Your task to perform on an android device: open app "The Home Depot" (install if not already installed) Image 0: 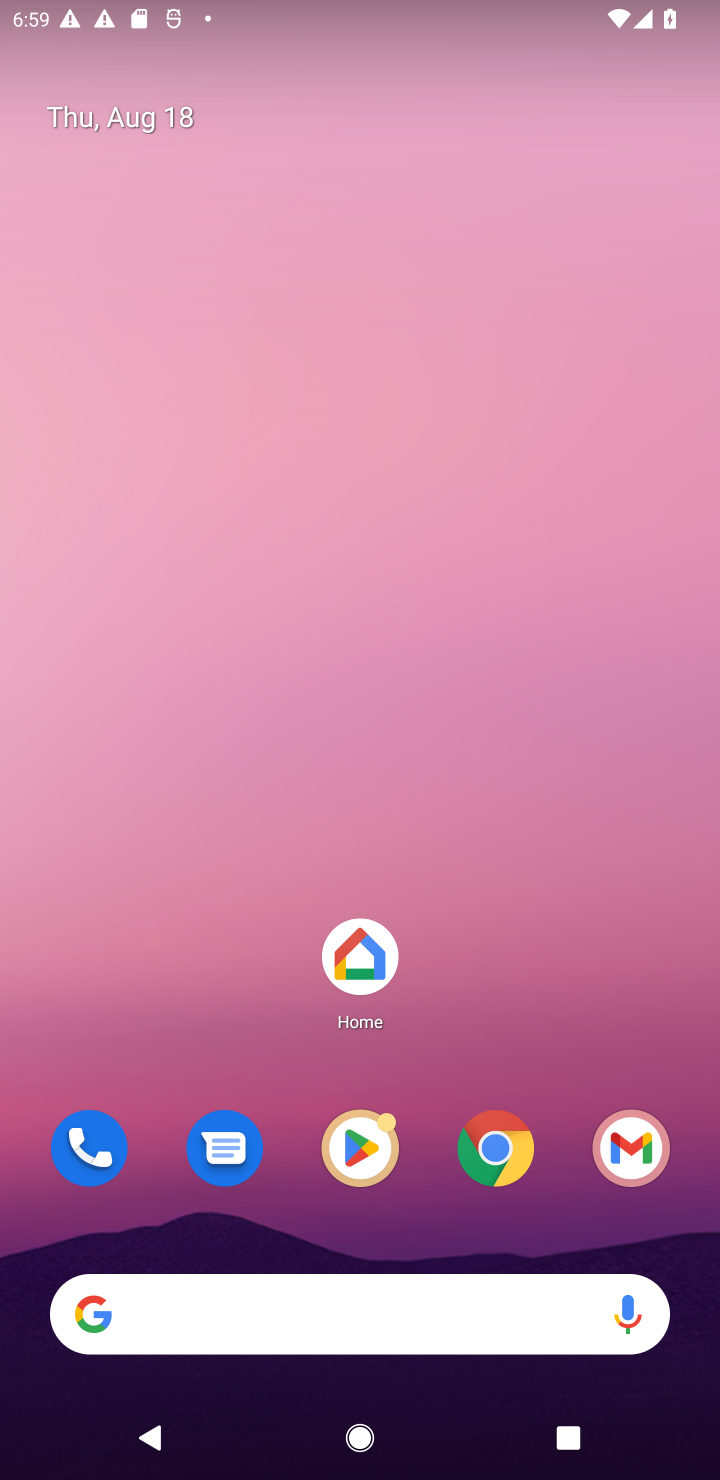
Step 0: drag from (211, 1051) to (270, 1)
Your task to perform on an android device: open app "The Home Depot" (install if not already installed) Image 1: 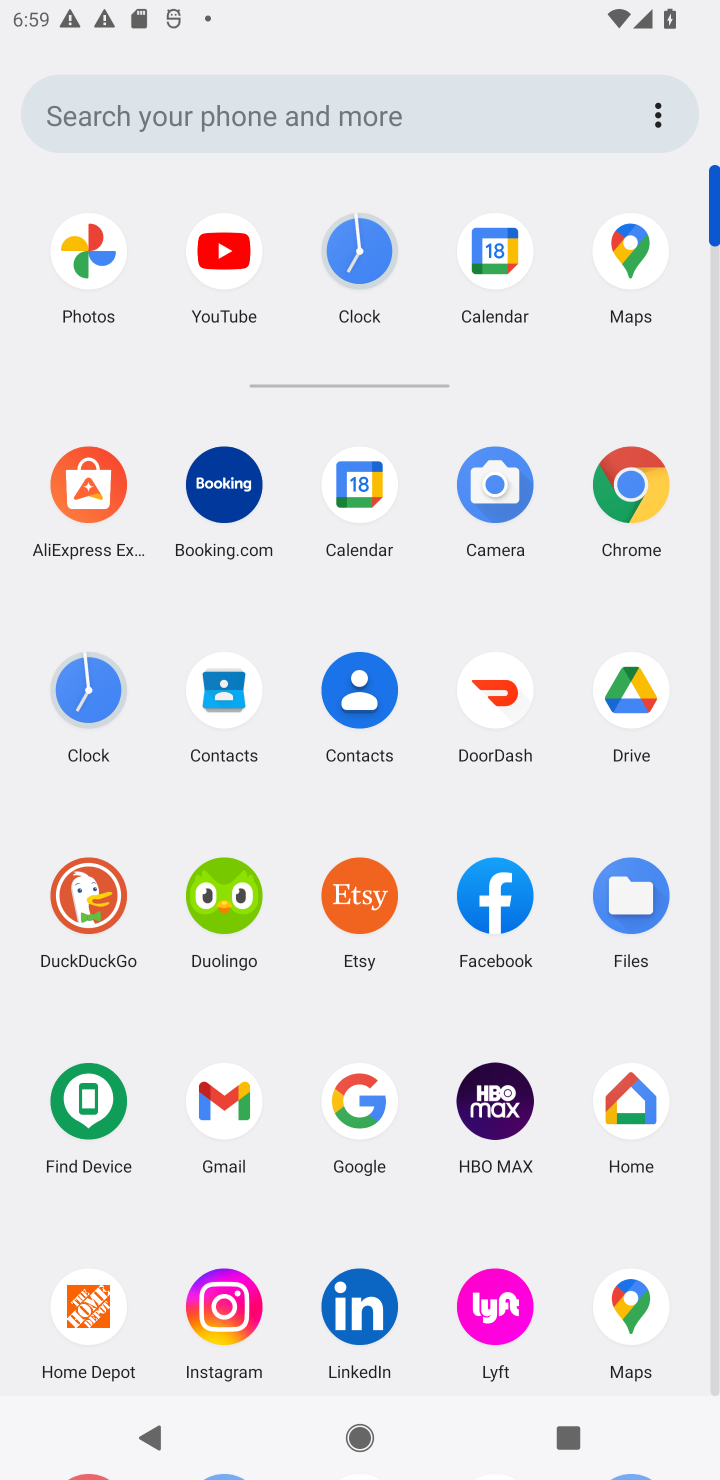
Step 1: drag from (569, 1194) to (439, 341)
Your task to perform on an android device: open app "The Home Depot" (install if not already installed) Image 2: 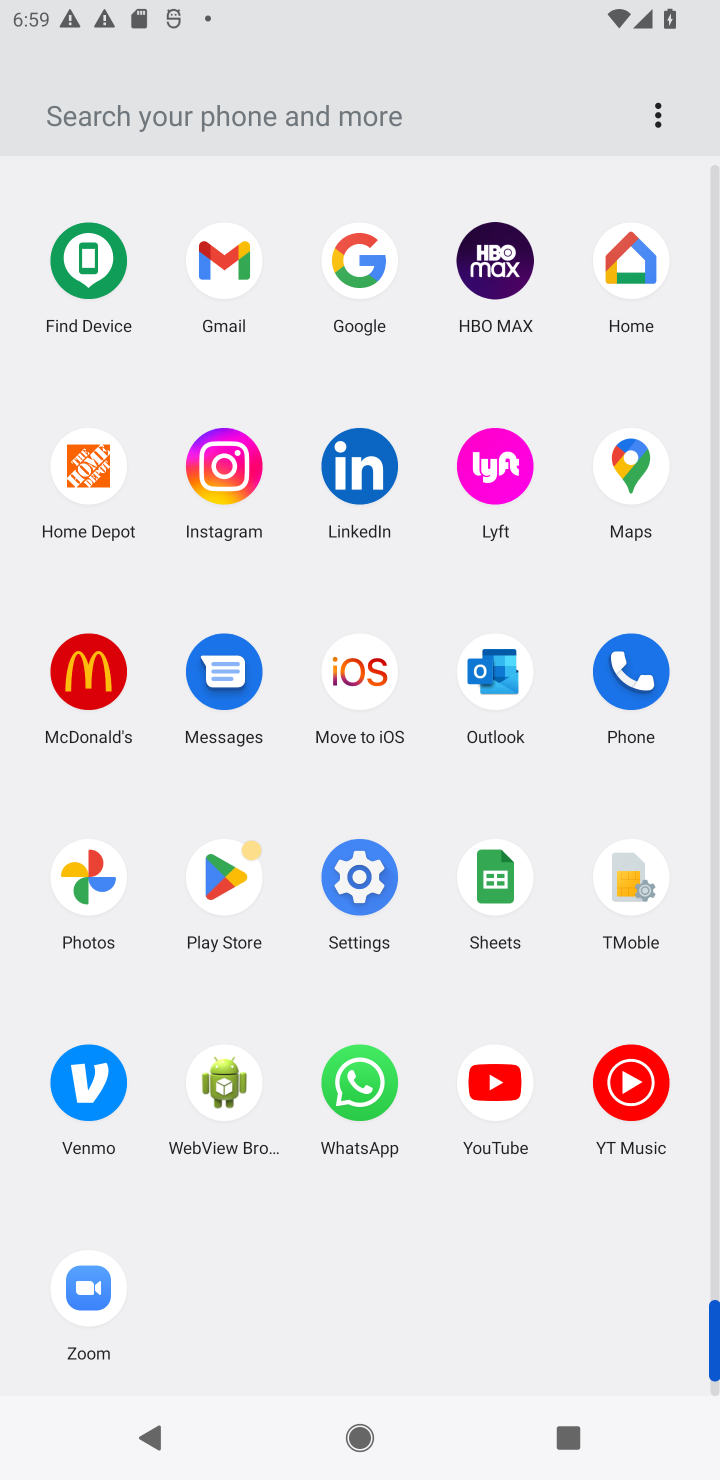
Step 2: click (220, 882)
Your task to perform on an android device: open app "The Home Depot" (install if not already installed) Image 3: 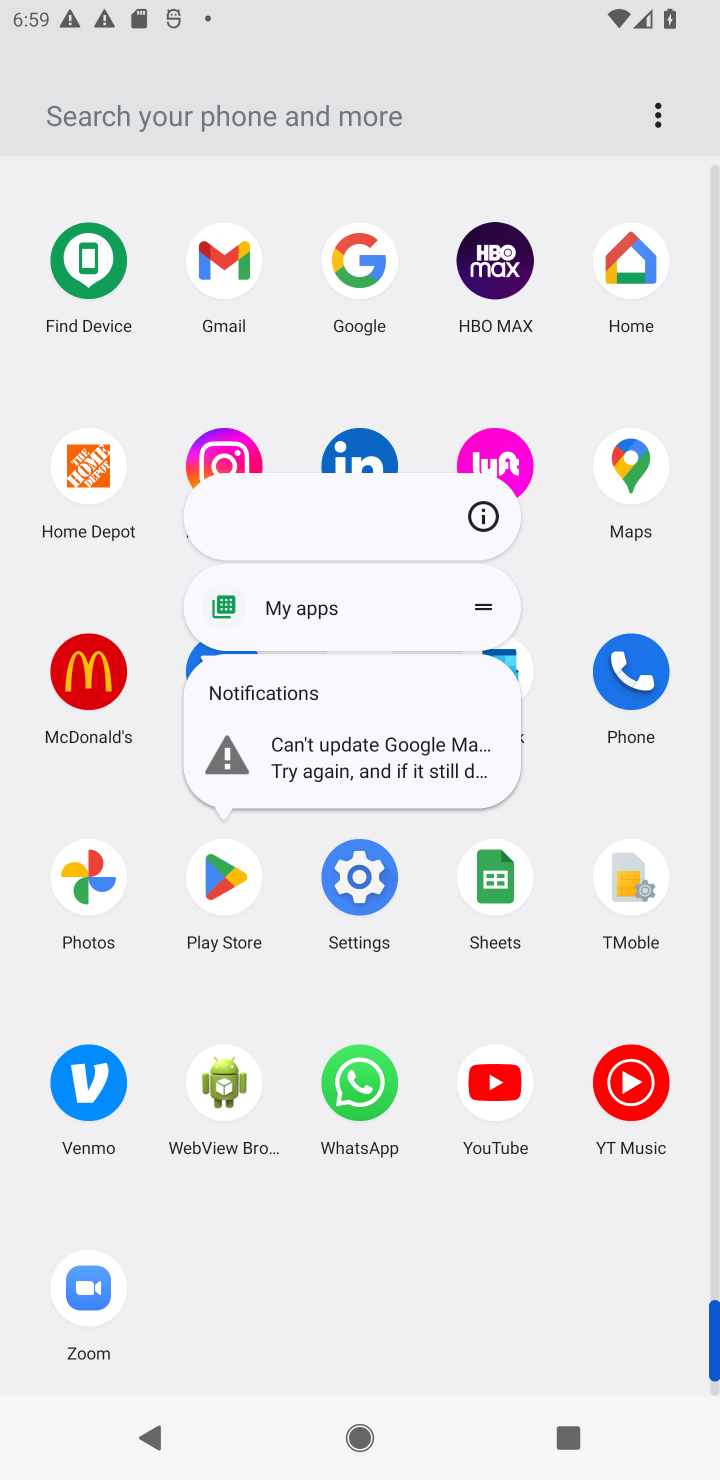
Step 3: click (220, 877)
Your task to perform on an android device: open app "The Home Depot" (install if not already installed) Image 4: 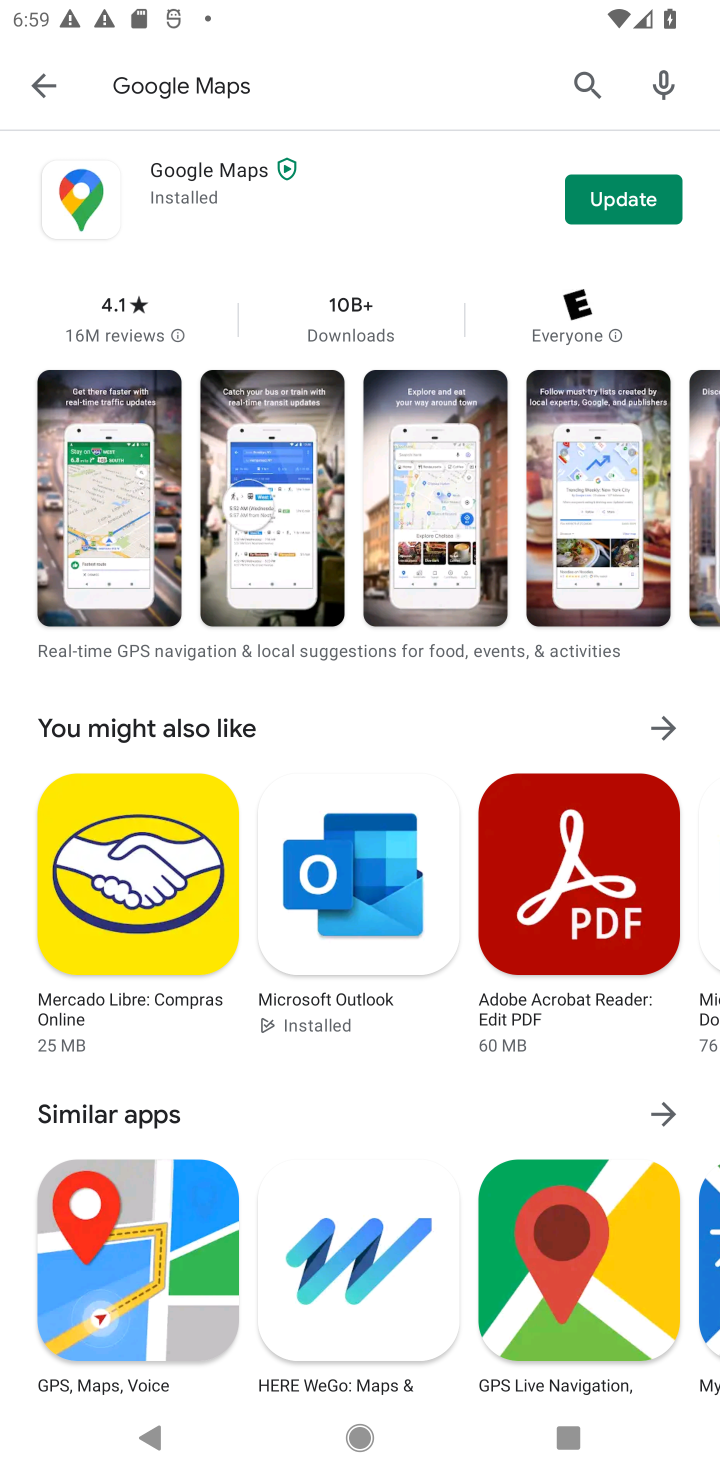
Step 4: press back button
Your task to perform on an android device: open app "The Home Depot" (install if not already installed) Image 5: 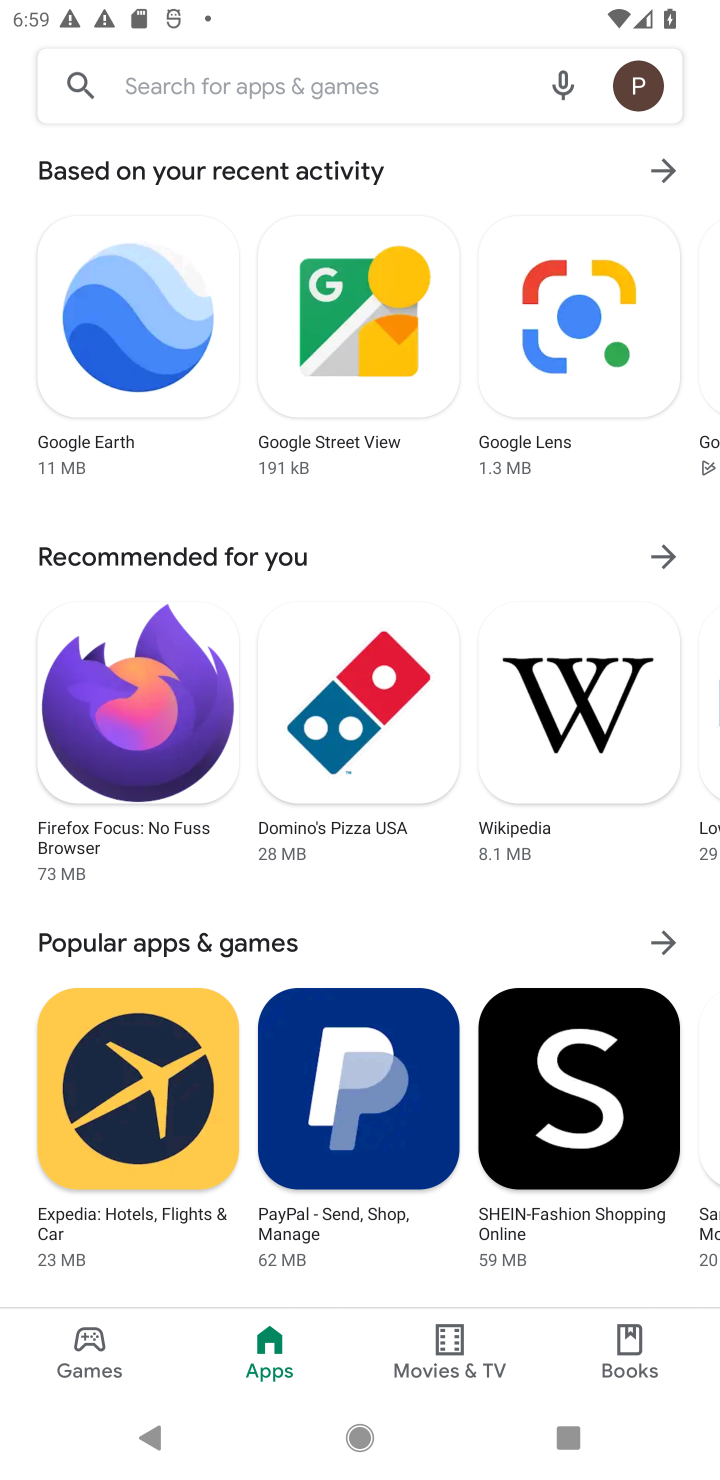
Step 5: click (308, 101)
Your task to perform on an android device: open app "The Home Depot" (install if not already installed) Image 6: 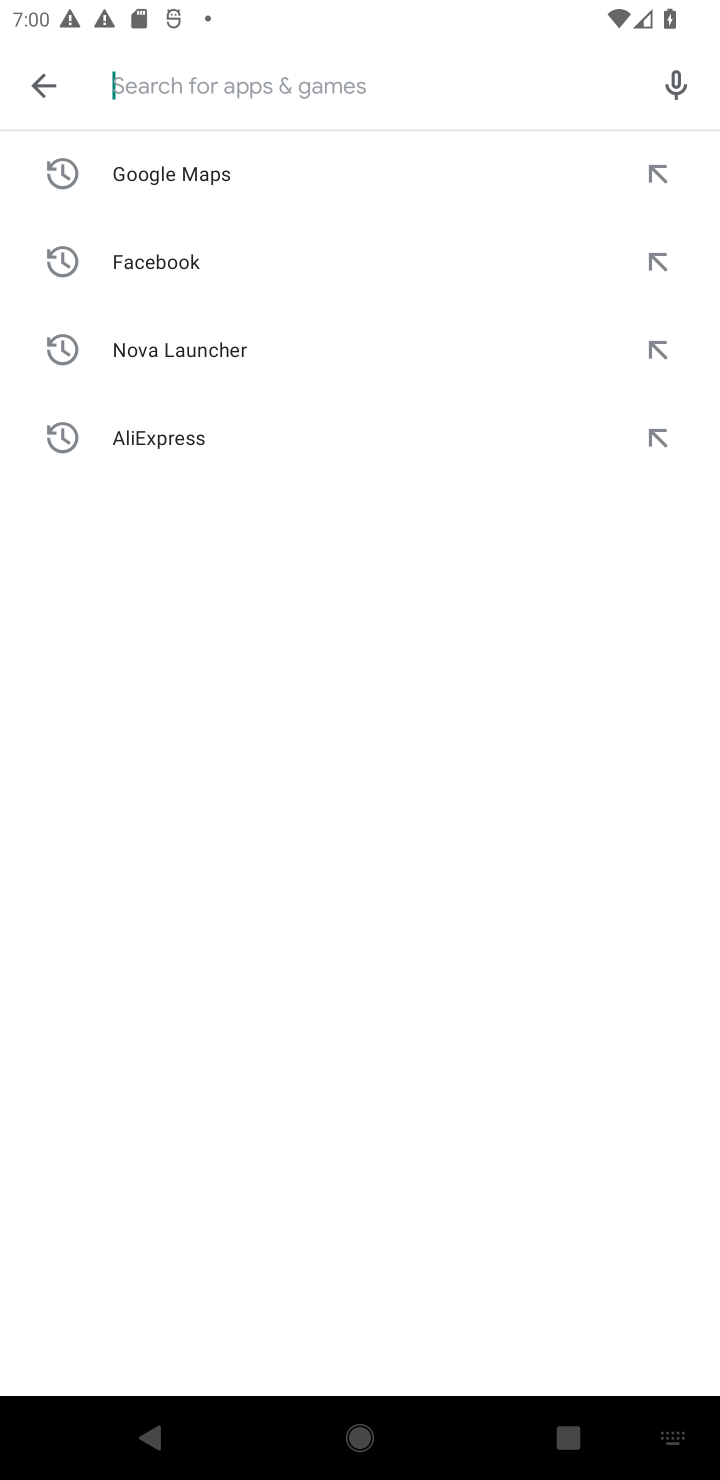
Step 6: type "The Home Depot"
Your task to perform on an android device: open app "The Home Depot" (install if not already installed) Image 7: 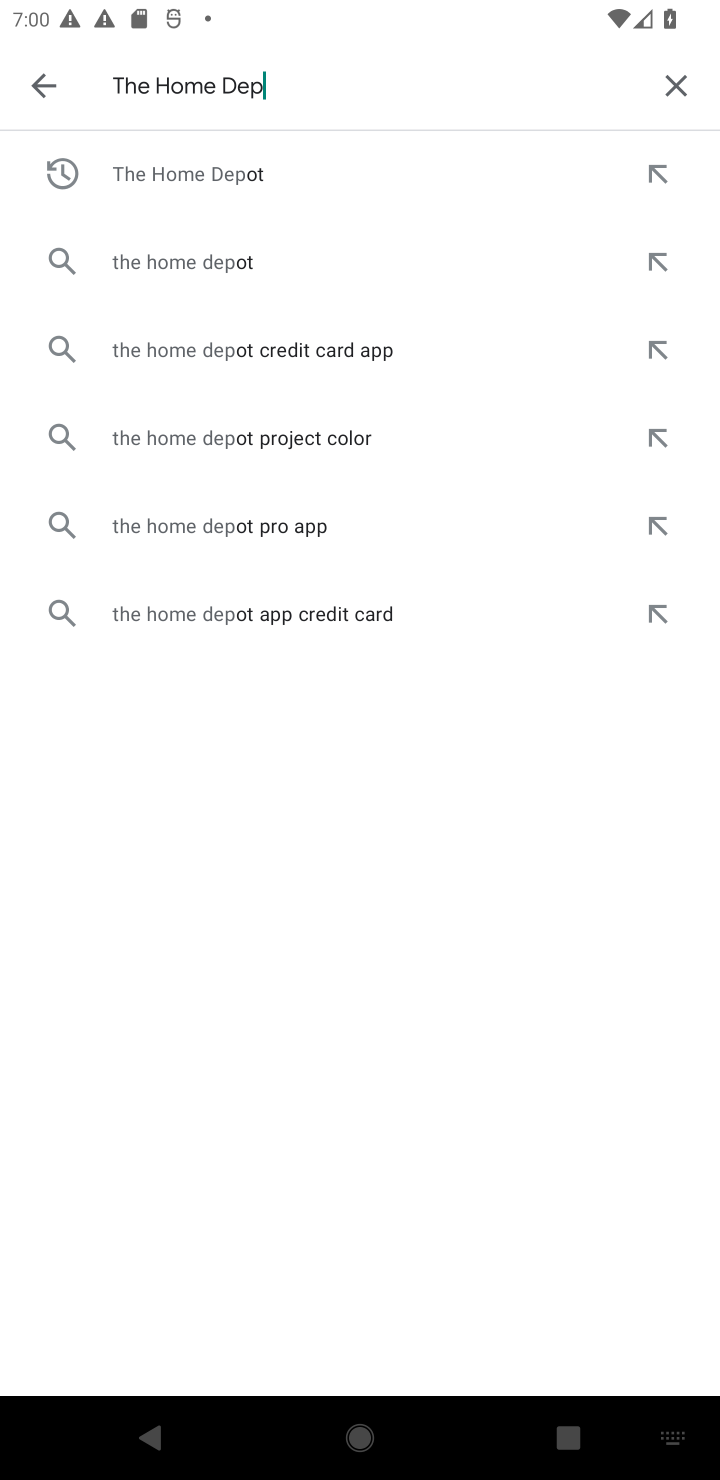
Step 7: press enter
Your task to perform on an android device: open app "The Home Depot" (install if not already installed) Image 8: 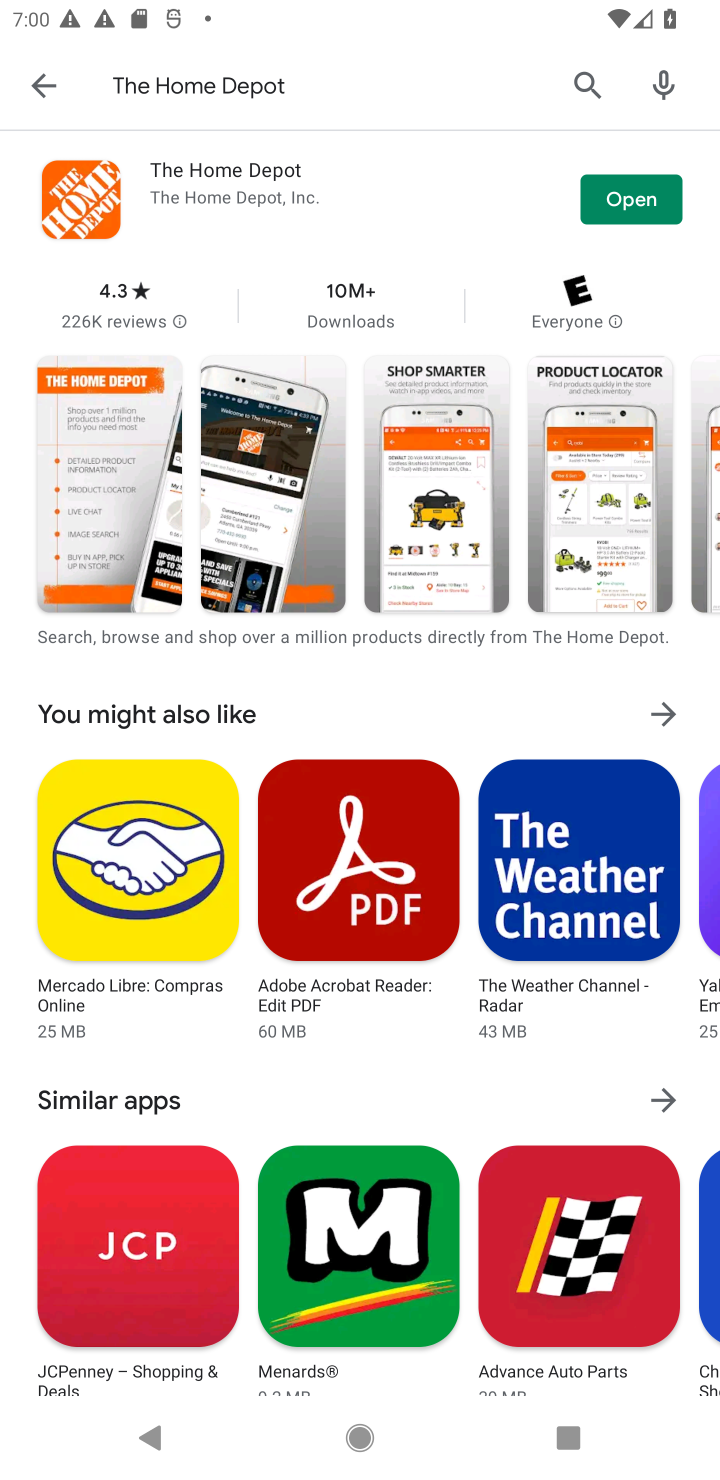
Step 8: click (585, 191)
Your task to perform on an android device: open app "The Home Depot" (install if not already installed) Image 9: 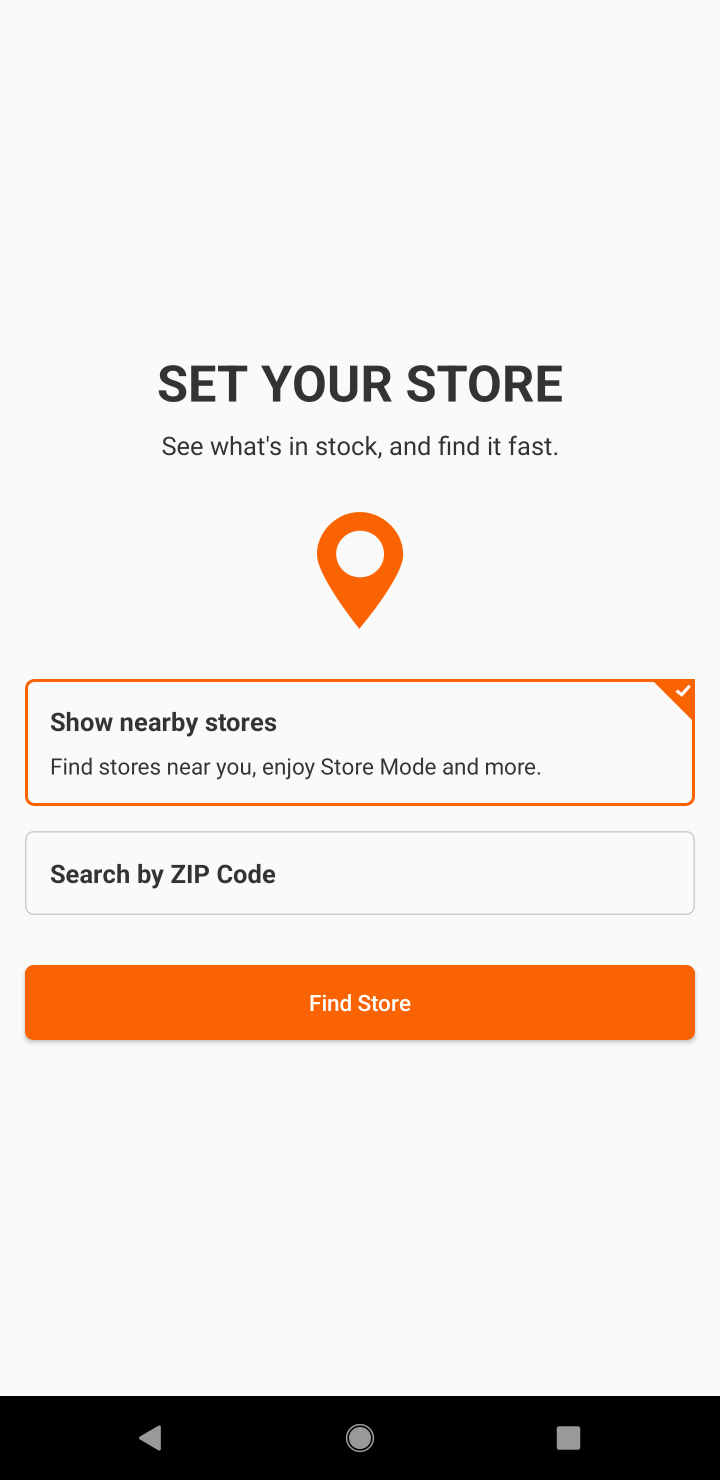
Step 9: task complete